Your task to perform on an android device: Open the Play Movies app and select the watchlist tab. Image 0: 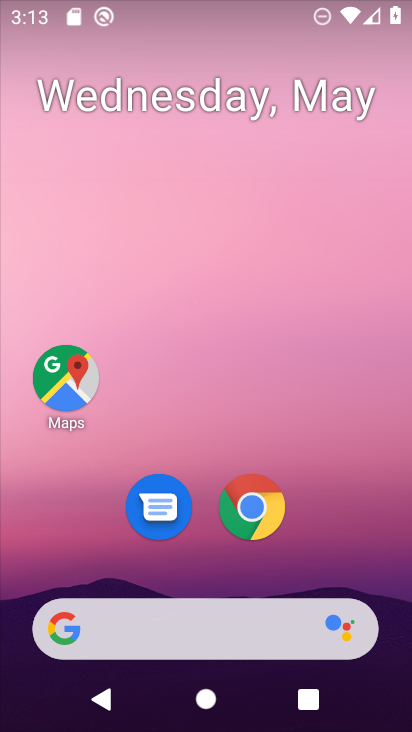
Step 0: drag from (195, 582) to (228, 5)
Your task to perform on an android device: Open the Play Movies app and select the watchlist tab. Image 1: 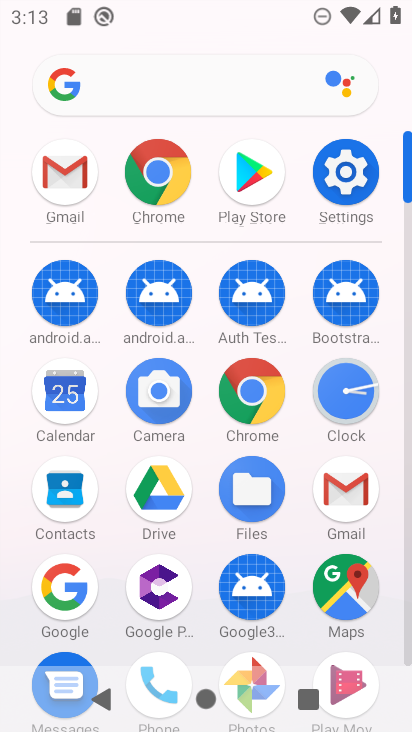
Step 1: drag from (284, 625) to (305, 355)
Your task to perform on an android device: Open the Play Movies app and select the watchlist tab. Image 2: 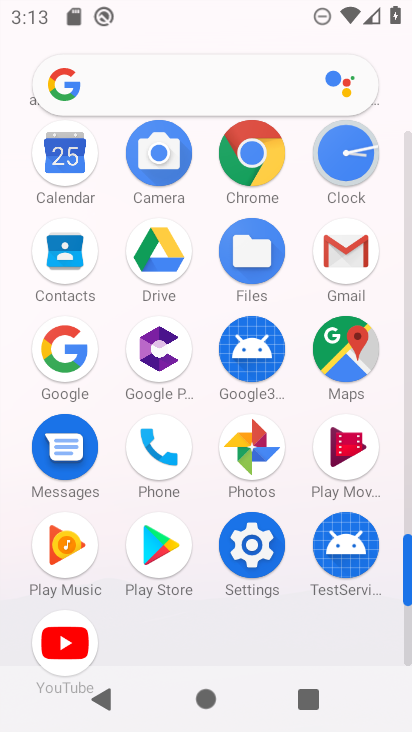
Step 2: click (356, 461)
Your task to perform on an android device: Open the Play Movies app and select the watchlist tab. Image 3: 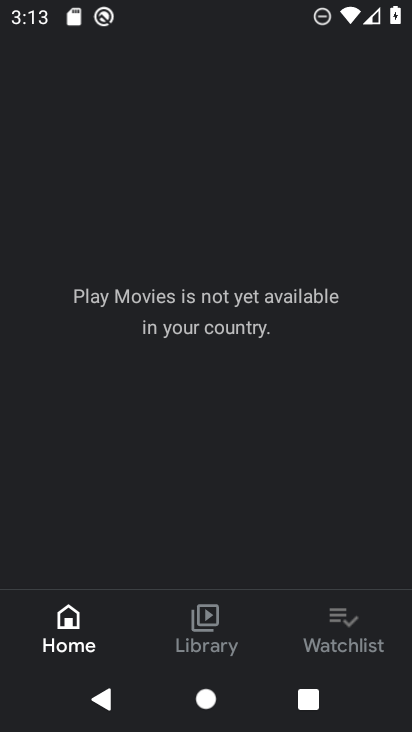
Step 3: click (332, 608)
Your task to perform on an android device: Open the Play Movies app and select the watchlist tab. Image 4: 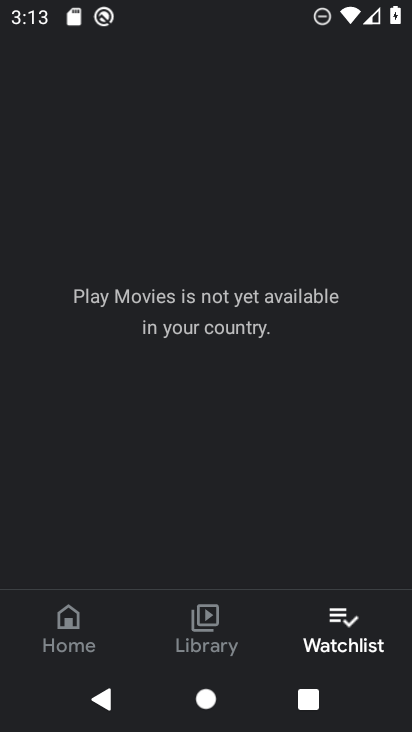
Step 4: task complete